Your task to perform on an android device: When is my next appointment? Image 0: 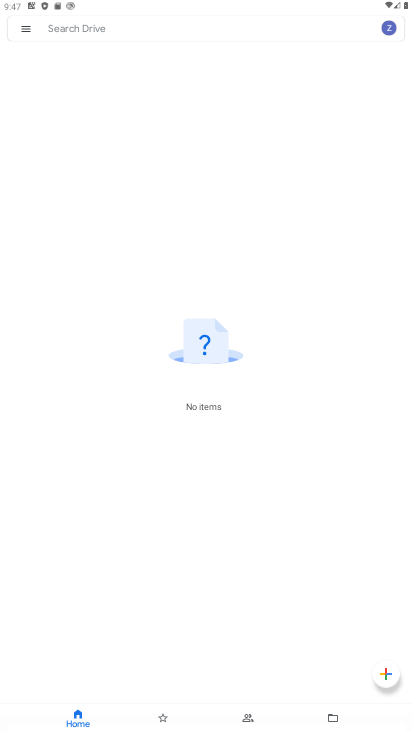
Step 0: press home button
Your task to perform on an android device: When is my next appointment? Image 1: 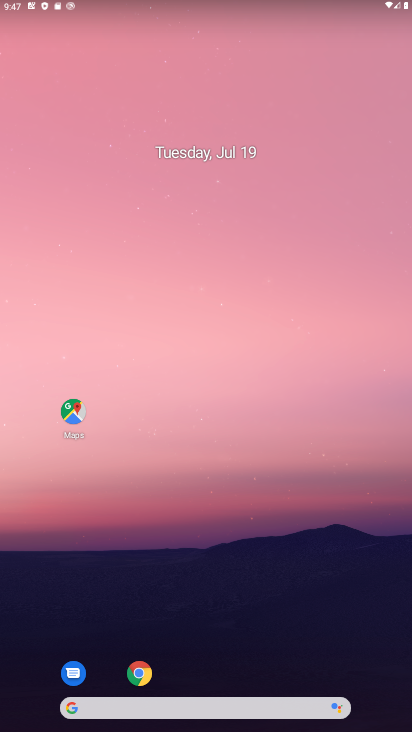
Step 1: drag from (192, 665) to (219, 187)
Your task to perform on an android device: When is my next appointment? Image 2: 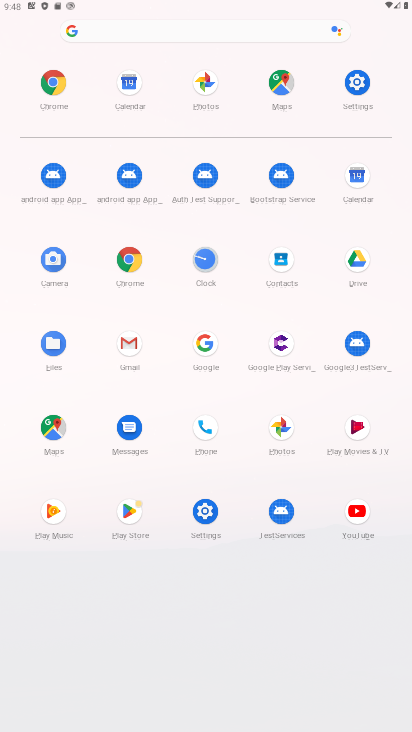
Step 2: click (342, 188)
Your task to perform on an android device: When is my next appointment? Image 3: 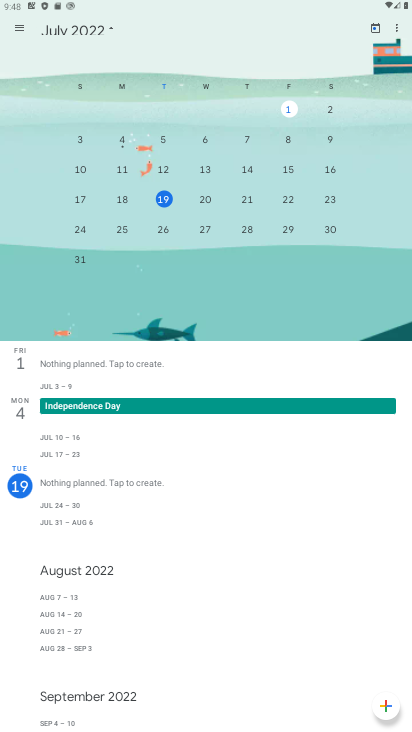
Step 3: task complete